Your task to perform on an android device: Open Wikipedia Image 0: 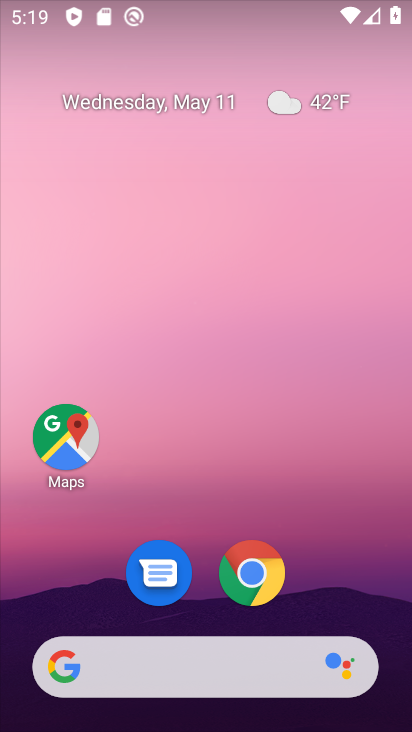
Step 0: drag from (301, 592) to (268, 249)
Your task to perform on an android device: Open Wikipedia Image 1: 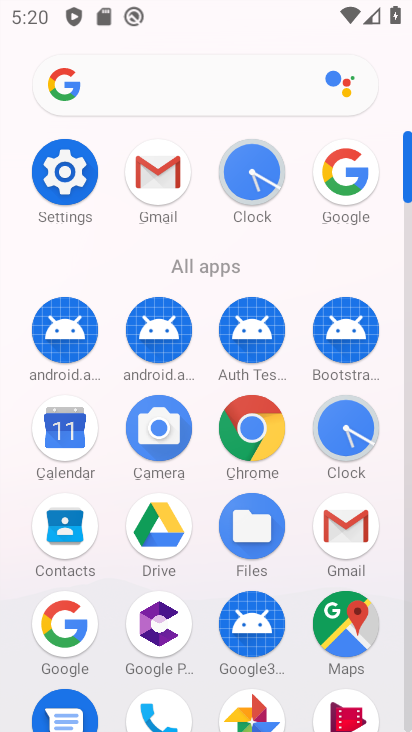
Step 1: click (250, 474)
Your task to perform on an android device: Open Wikipedia Image 2: 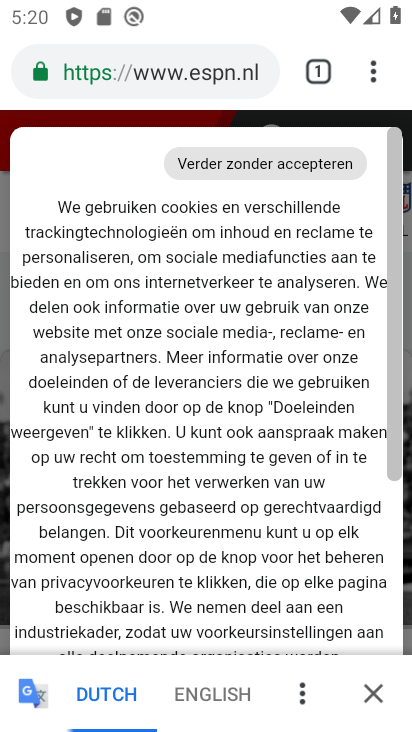
Step 2: click (314, 68)
Your task to perform on an android device: Open Wikipedia Image 3: 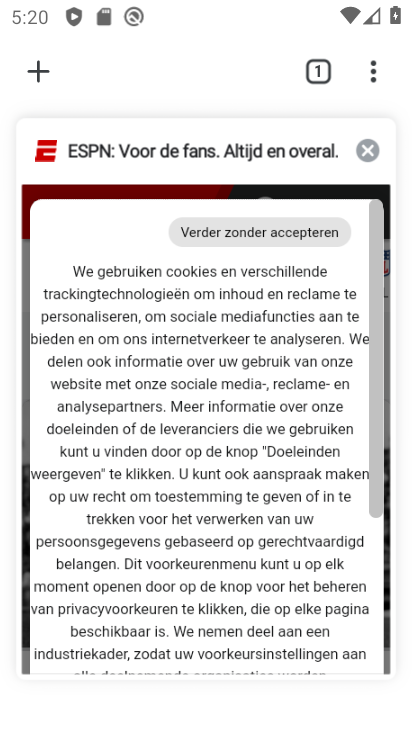
Step 3: click (32, 71)
Your task to perform on an android device: Open Wikipedia Image 4: 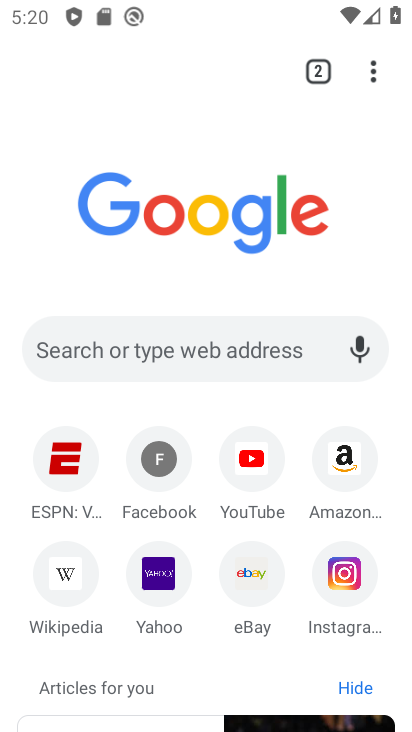
Step 4: click (47, 610)
Your task to perform on an android device: Open Wikipedia Image 5: 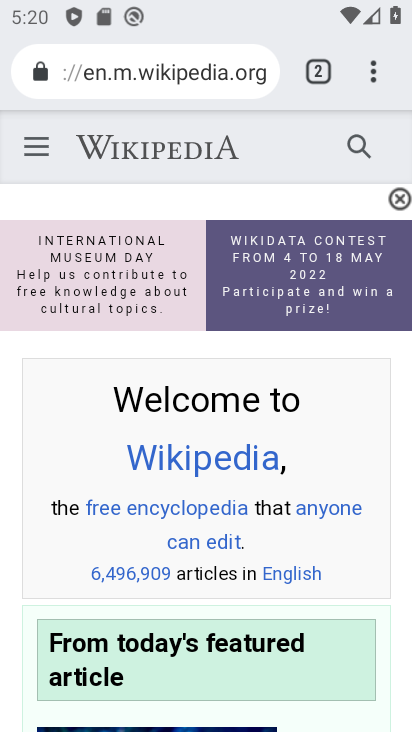
Step 5: task complete